Your task to perform on an android device: Is it going to rain this weekend? Image 0: 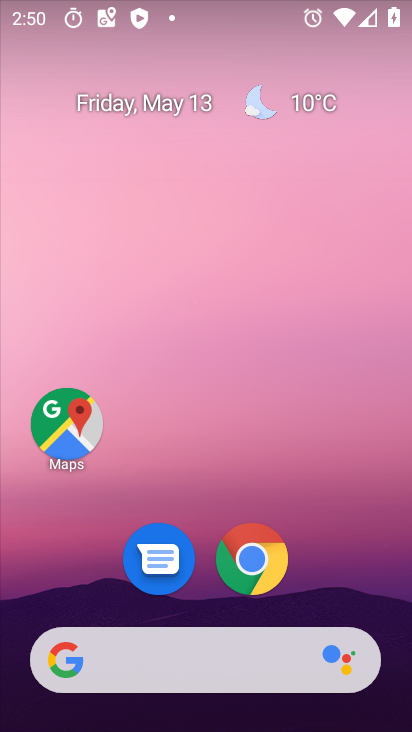
Step 0: drag from (207, 596) to (209, 249)
Your task to perform on an android device: Is it going to rain this weekend? Image 1: 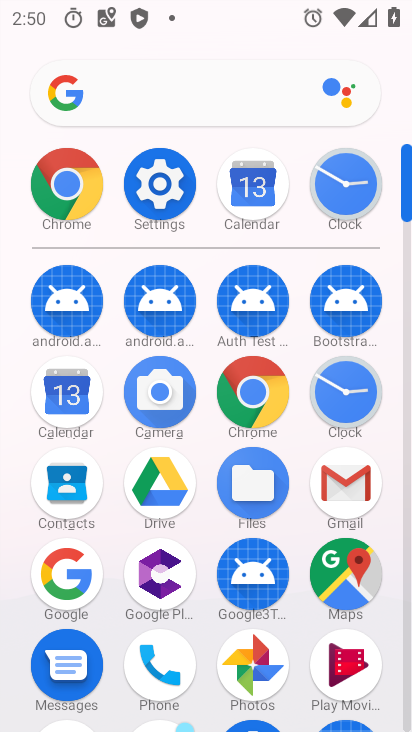
Step 1: click (72, 549)
Your task to perform on an android device: Is it going to rain this weekend? Image 2: 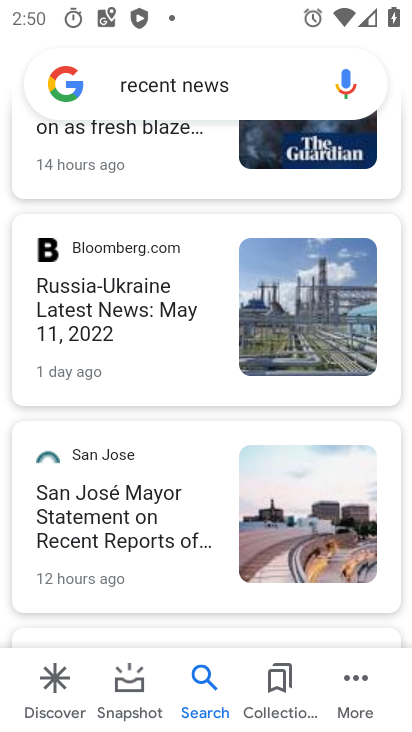
Step 2: drag from (168, 248) to (181, 412)
Your task to perform on an android device: Is it going to rain this weekend? Image 3: 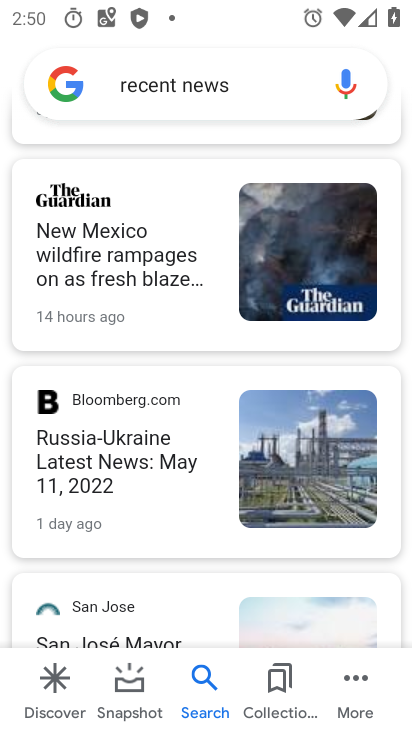
Step 3: drag from (144, 229) to (162, 536)
Your task to perform on an android device: Is it going to rain this weekend? Image 4: 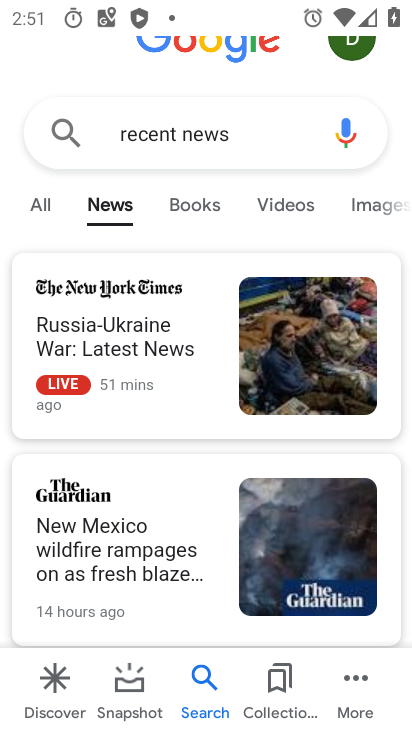
Step 4: click (295, 133)
Your task to perform on an android device: Is it going to rain this weekend? Image 5: 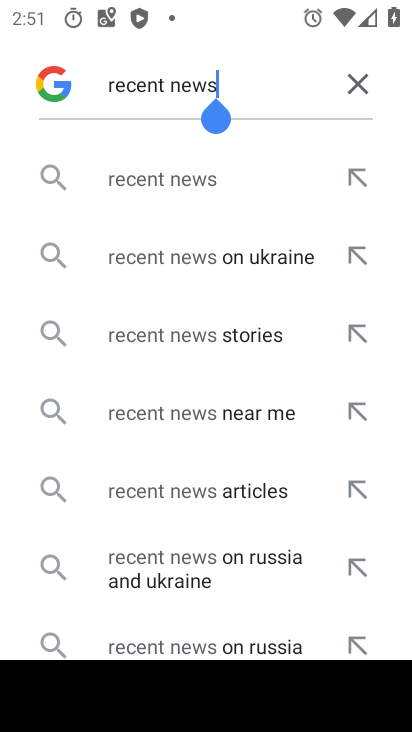
Step 5: click (356, 88)
Your task to perform on an android device: Is it going to rain this weekend? Image 6: 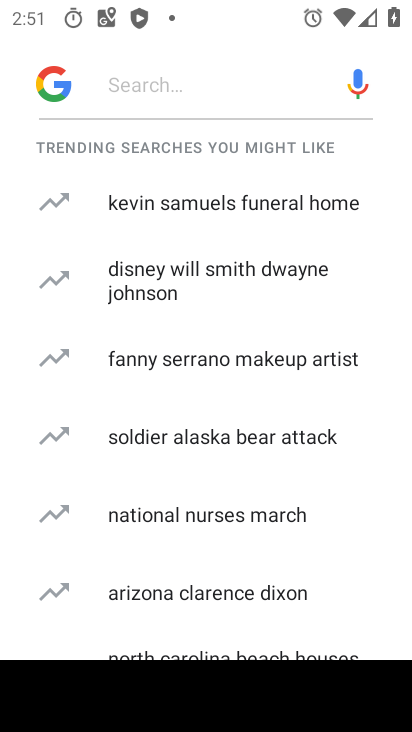
Step 6: type "wea"
Your task to perform on an android device: Is it going to rain this weekend? Image 7: 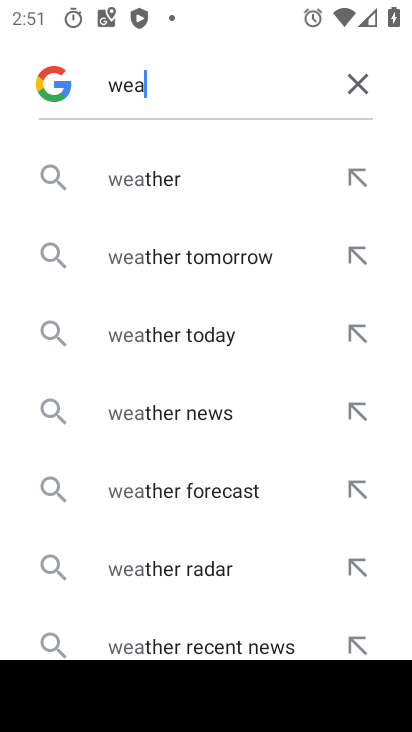
Step 7: click (139, 172)
Your task to perform on an android device: Is it going to rain this weekend? Image 8: 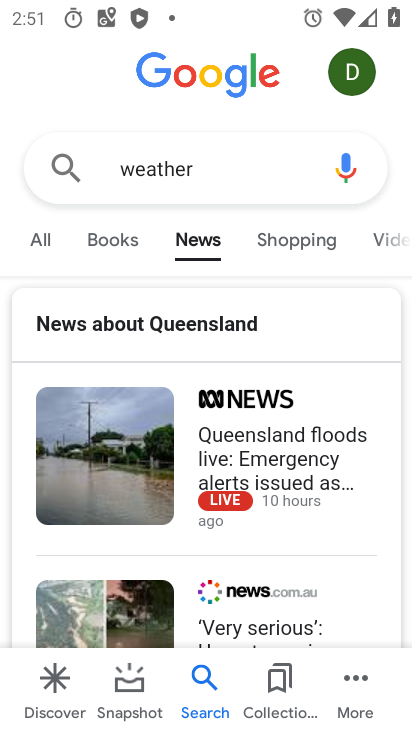
Step 8: click (43, 231)
Your task to perform on an android device: Is it going to rain this weekend? Image 9: 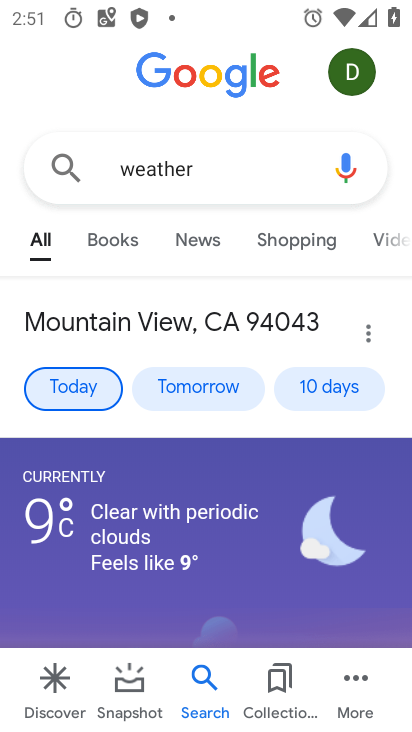
Step 9: click (303, 381)
Your task to perform on an android device: Is it going to rain this weekend? Image 10: 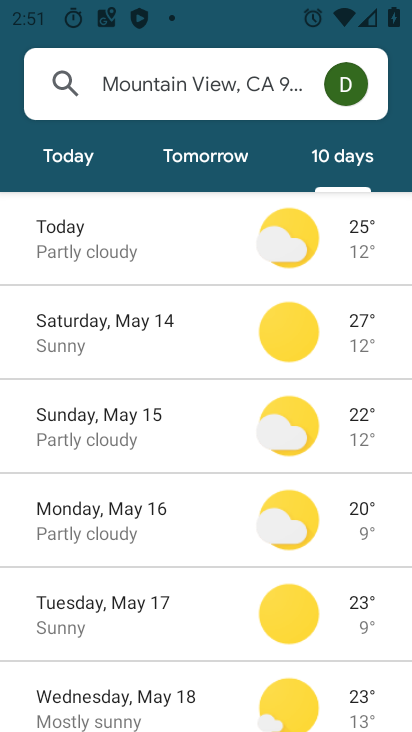
Step 10: task complete